Your task to perform on an android device: Open Google Maps and go to "Timeline" Image 0: 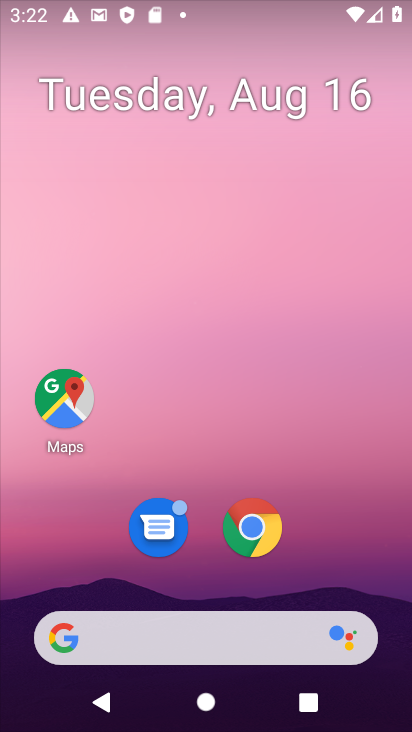
Step 0: click (36, 410)
Your task to perform on an android device: Open Google Maps and go to "Timeline" Image 1: 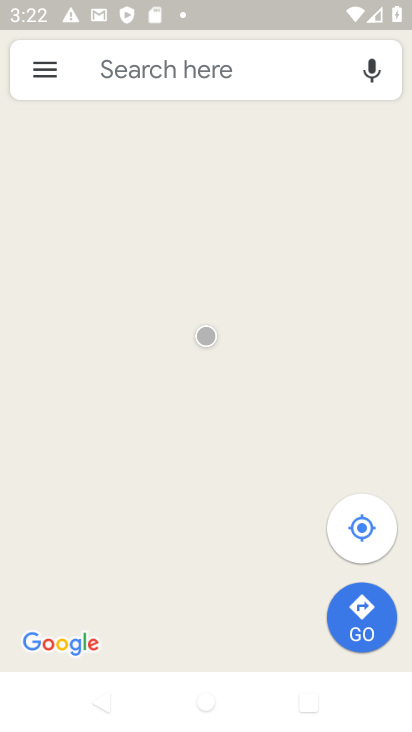
Step 1: click (37, 72)
Your task to perform on an android device: Open Google Maps and go to "Timeline" Image 2: 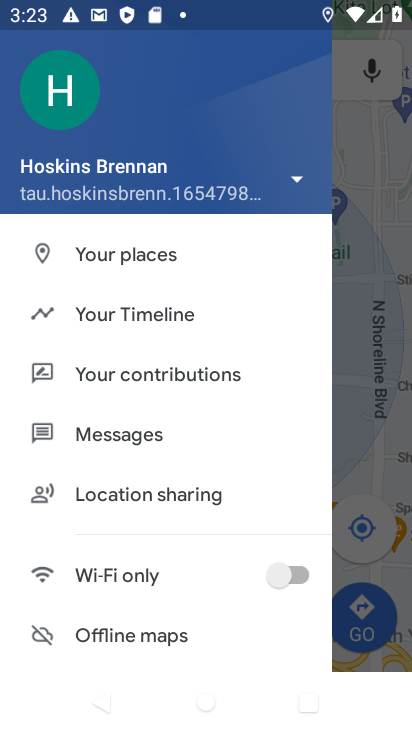
Step 2: click (131, 308)
Your task to perform on an android device: Open Google Maps and go to "Timeline" Image 3: 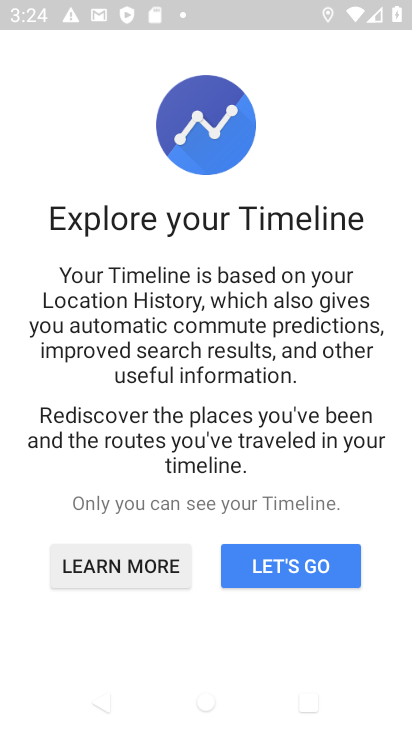
Step 3: click (274, 574)
Your task to perform on an android device: Open Google Maps and go to "Timeline" Image 4: 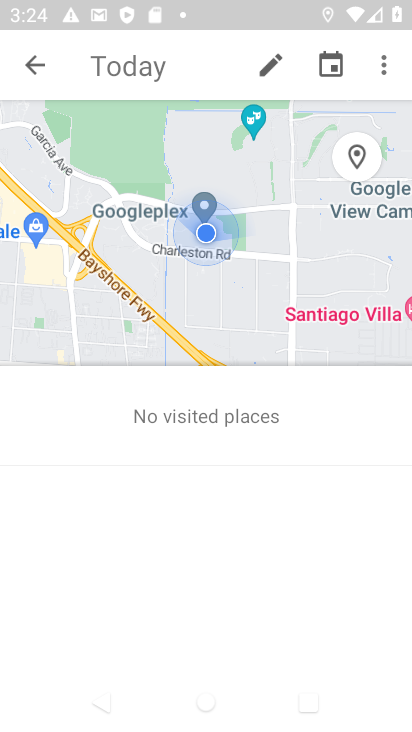
Step 4: task complete